Your task to perform on an android device: Go to calendar. Show me events next week Image 0: 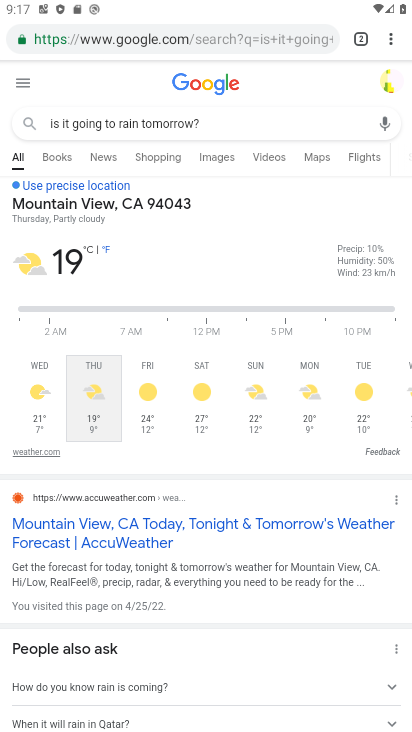
Step 0: drag from (206, 604) to (406, 458)
Your task to perform on an android device: Go to calendar. Show me events next week Image 1: 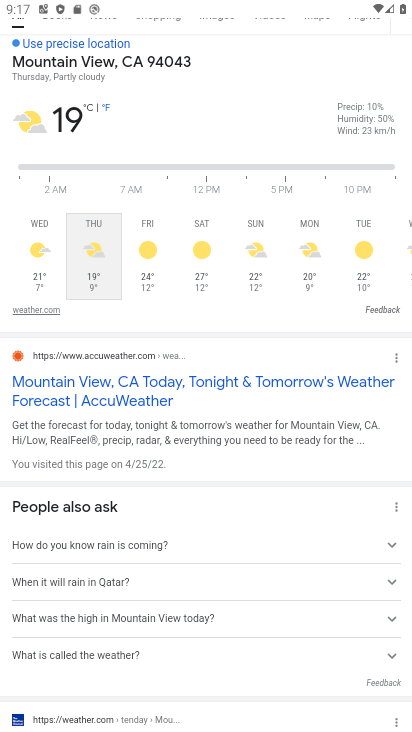
Step 1: press home button
Your task to perform on an android device: Go to calendar. Show me events next week Image 2: 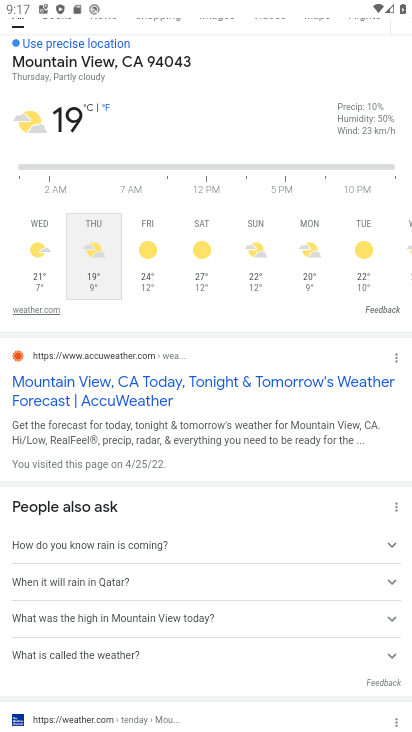
Step 2: drag from (406, 458) to (377, 438)
Your task to perform on an android device: Go to calendar. Show me events next week Image 3: 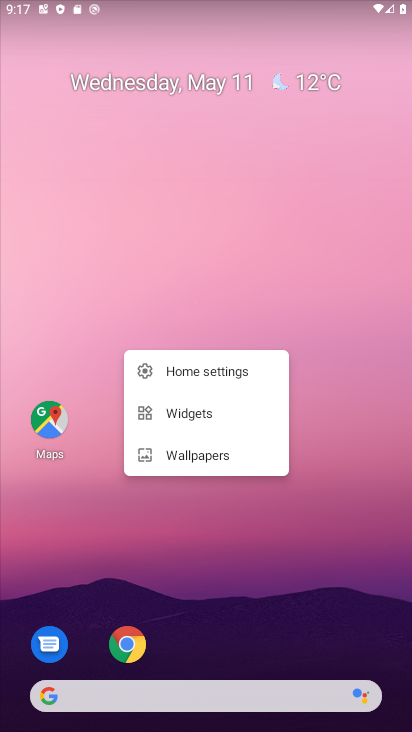
Step 3: drag from (251, 642) to (202, 168)
Your task to perform on an android device: Go to calendar. Show me events next week Image 4: 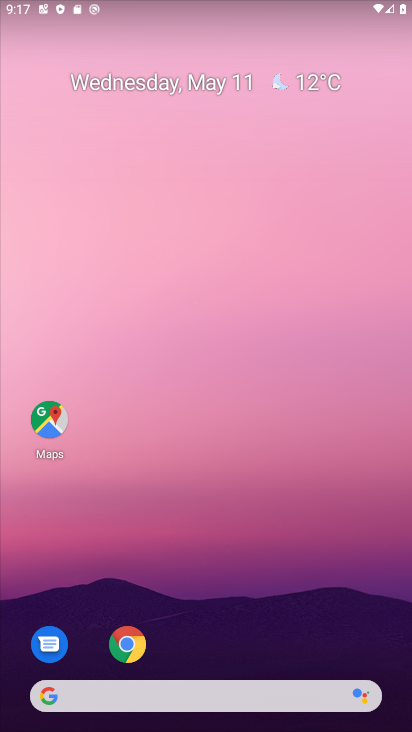
Step 4: drag from (249, 642) to (178, 178)
Your task to perform on an android device: Go to calendar. Show me events next week Image 5: 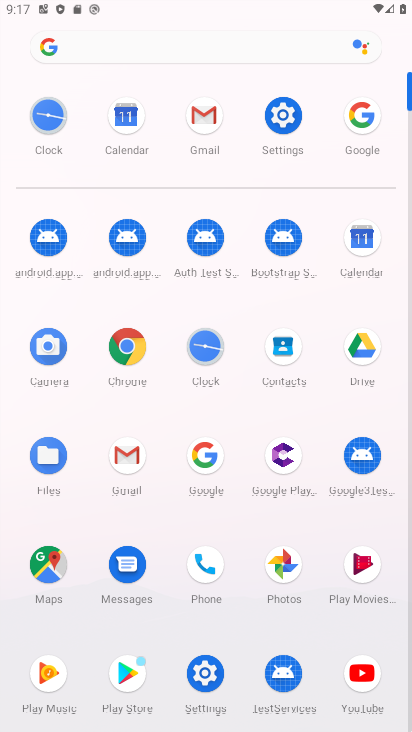
Step 5: click (128, 138)
Your task to perform on an android device: Go to calendar. Show me events next week Image 6: 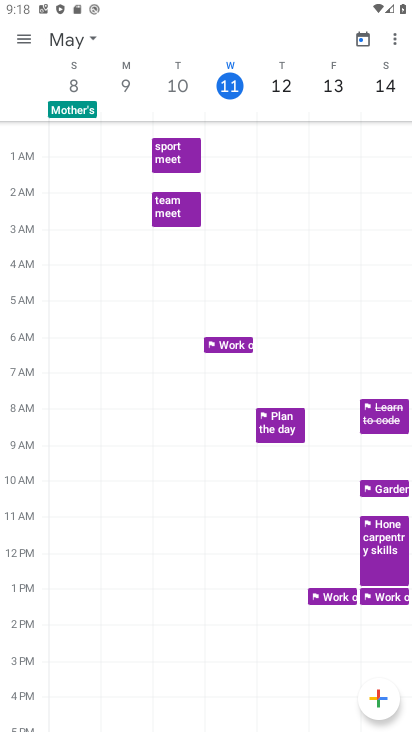
Step 6: task complete